Your task to perform on an android device: turn smart compose on in the gmail app Image 0: 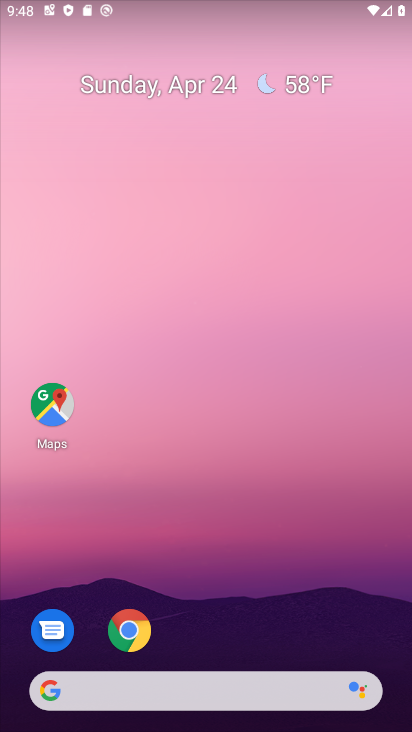
Step 0: click (406, 0)
Your task to perform on an android device: turn smart compose on in the gmail app Image 1: 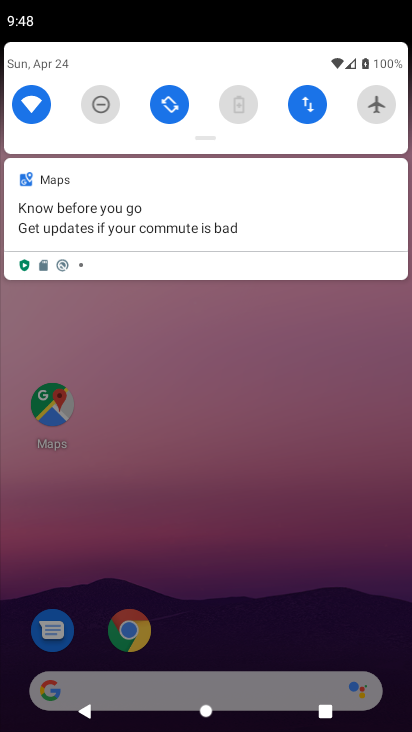
Step 1: drag from (249, 587) to (328, 249)
Your task to perform on an android device: turn smart compose on in the gmail app Image 2: 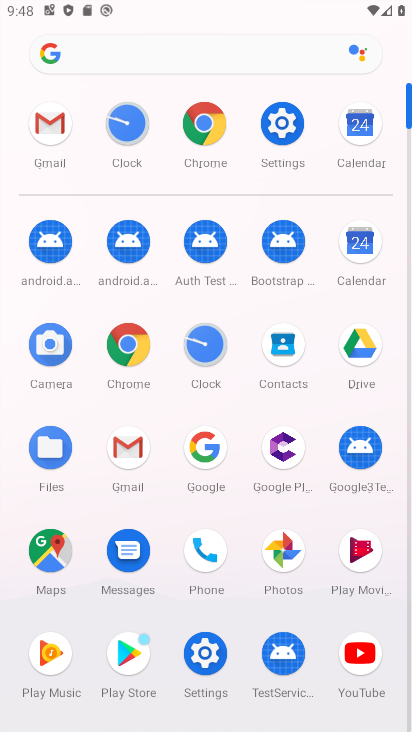
Step 2: click (111, 438)
Your task to perform on an android device: turn smart compose on in the gmail app Image 3: 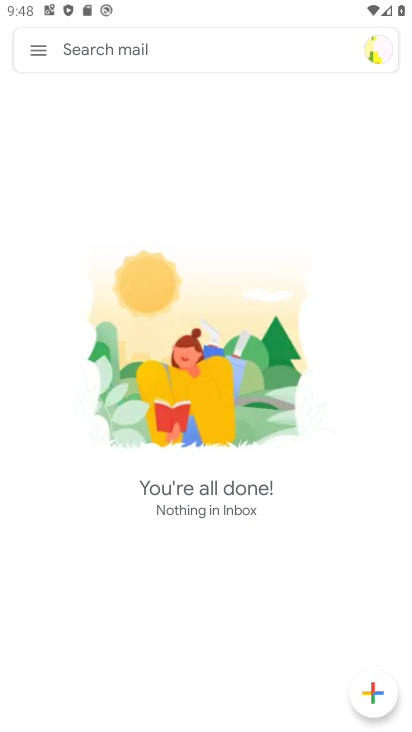
Step 3: click (41, 56)
Your task to perform on an android device: turn smart compose on in the gmail app Image 4: 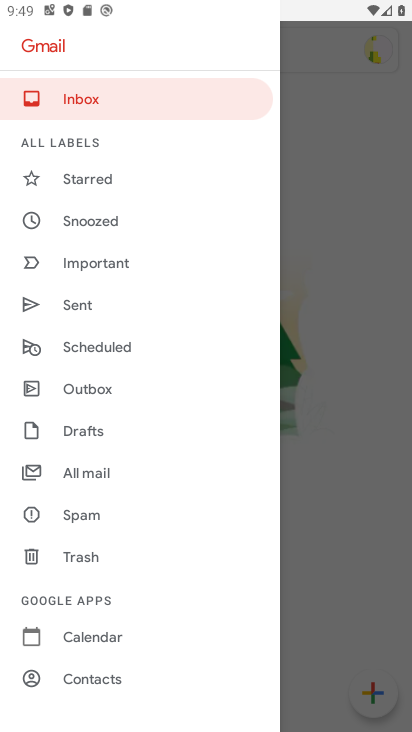
Step 4: drag from (93, 529) to (158, 58)
Your task to perform on an android device: turn smart compose on in the gmail app Image 5: 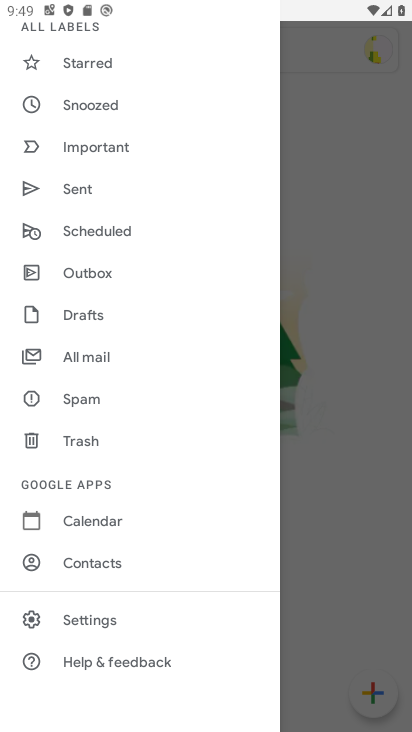
Step 5: click (111, 619)
Your task to perform on an android device: turn smart compose on in the gmail app Image 6: 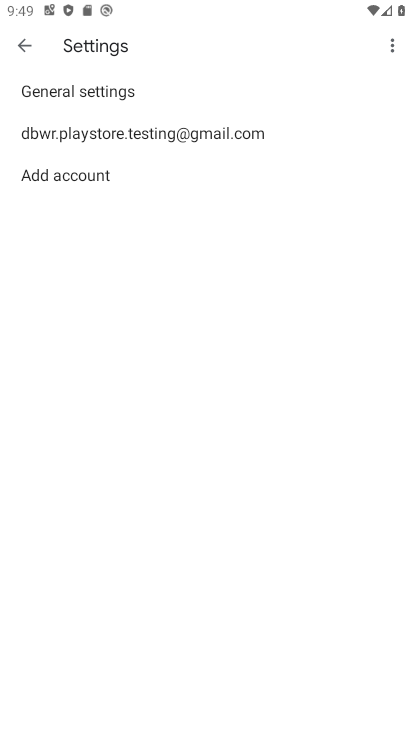
Step 6: click (164, 136)
Your task to perform on an android device: turn smart compose on in the gmail app Image 7: 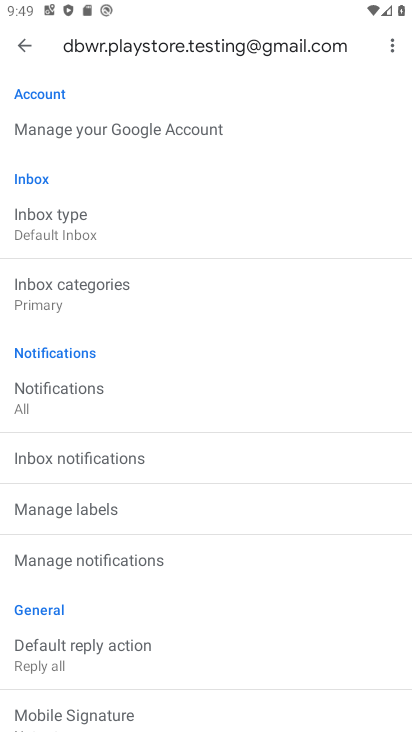
Step 7: task complete